Your task to perform on an android device: When is my next appointment? Image 0: 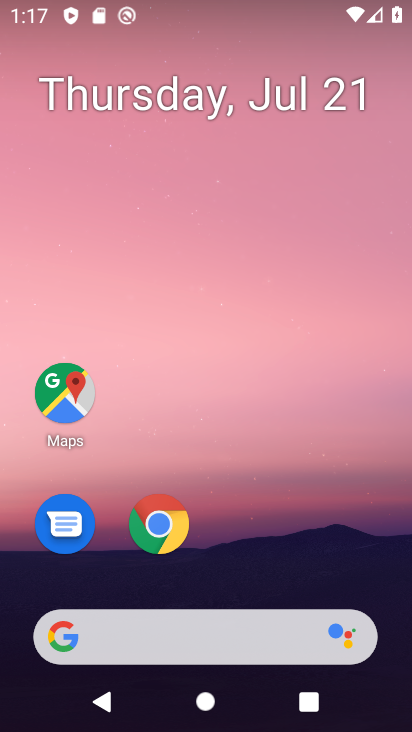
Step 0: drag from (288, 538) to (278, 30)
Your task to perform on an android device: When is my next appointment? Image 1: 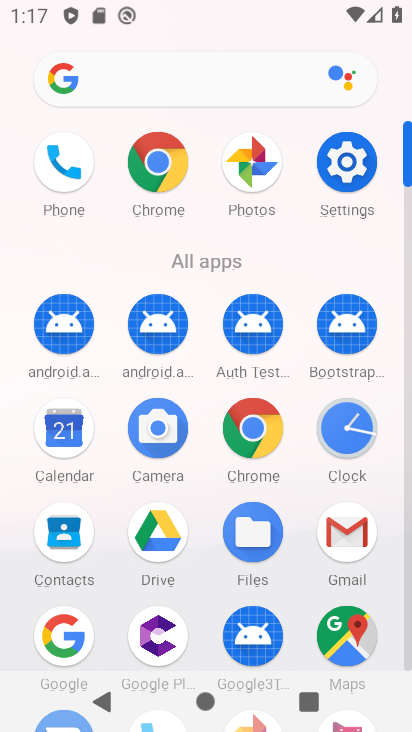
Step 1: click (74, 428)
Your task to perform on an android device: When is my next appointment? Image 2: 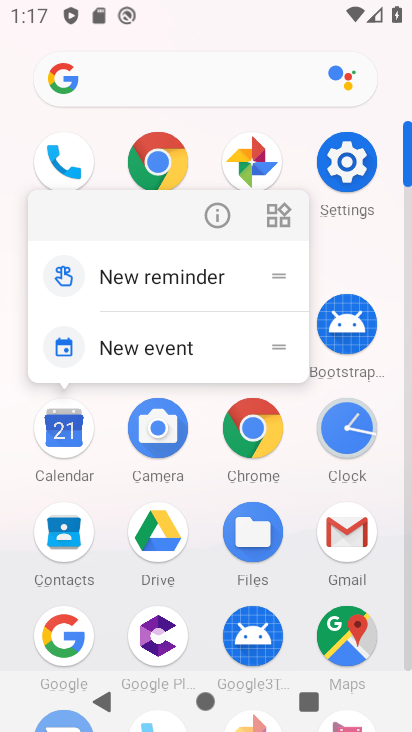
Step 2: click (74, 428)
Your task to perform on an android device: When is my next appointment? Image 3: 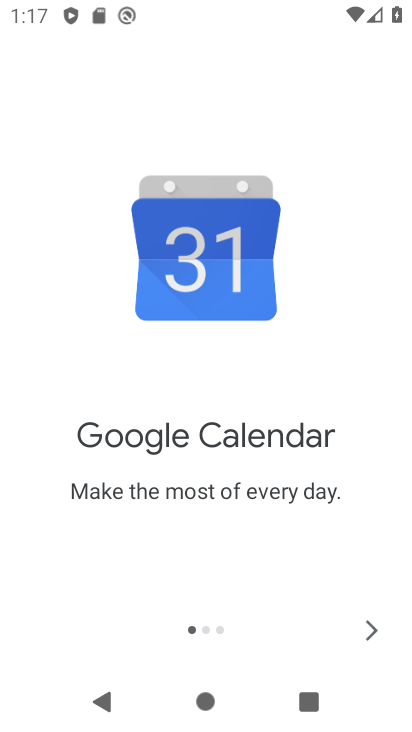
Step 3: click (370, 624)
Your task to perform on an android device: When is my next appointment? Image 4: 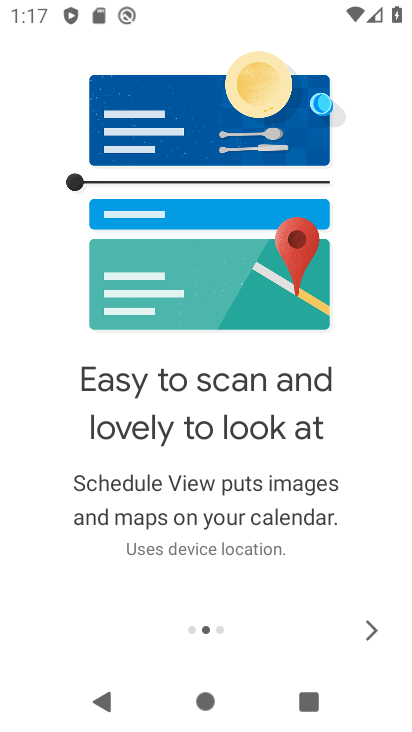
Step 4: click (370, 624)
Your task to perform on an android device: When is my next appointment? Image 5: 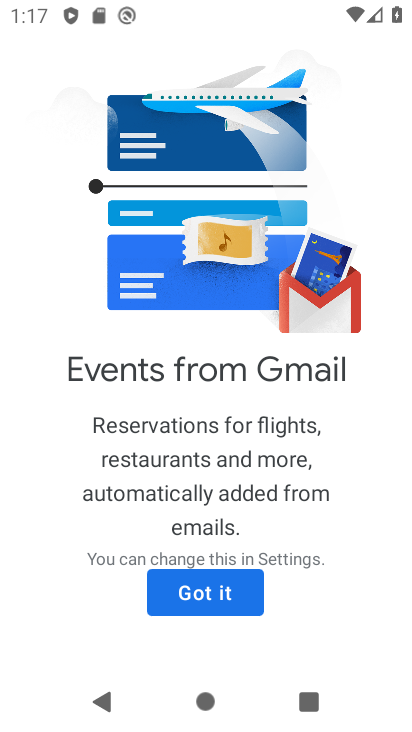
Step 5: click (259, 596)
Your task to perform on an android device: When is my next appointment? Image 6: 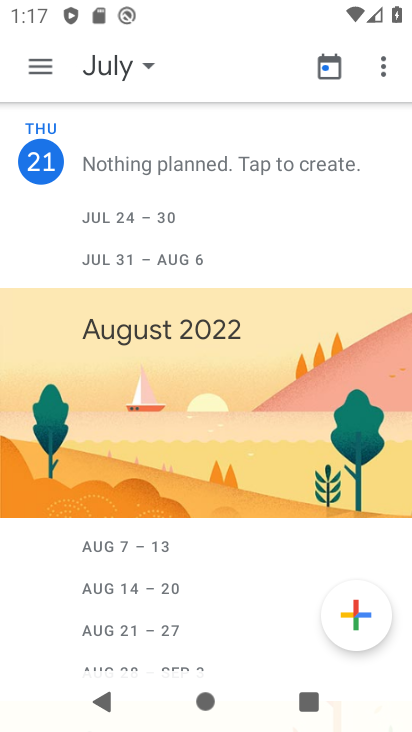
Step 6: click (43, 64)
Your task to perform on an android device: When is my next appointment? Image 7: 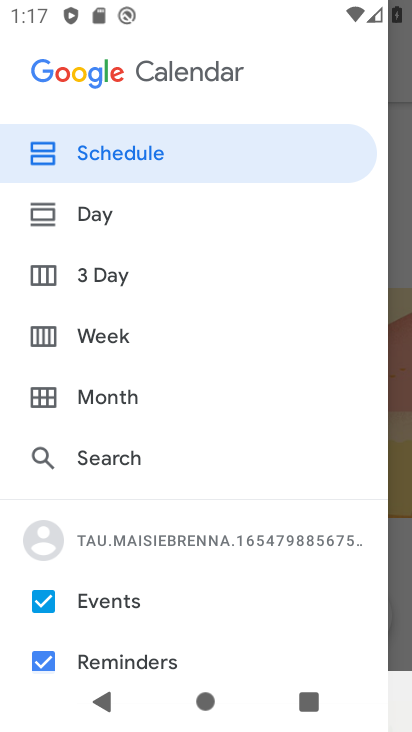
Step 7: click (89, 145)
Your task to perform on an android device: When is my next appointment? Image 8: 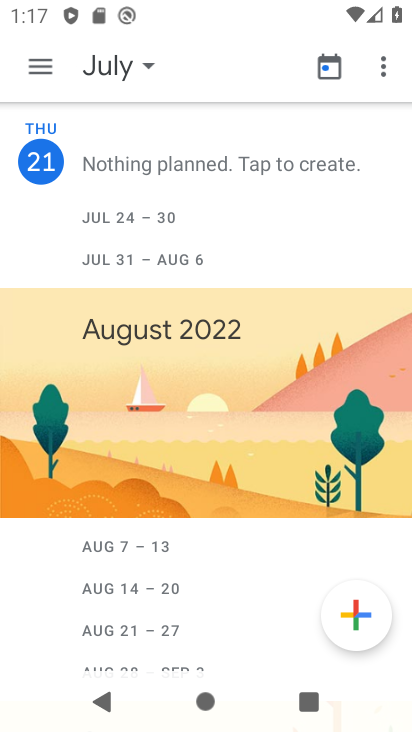
Step 8: task complete